Your task to perform on an android device: check the backup settings in the google photos Image 0: 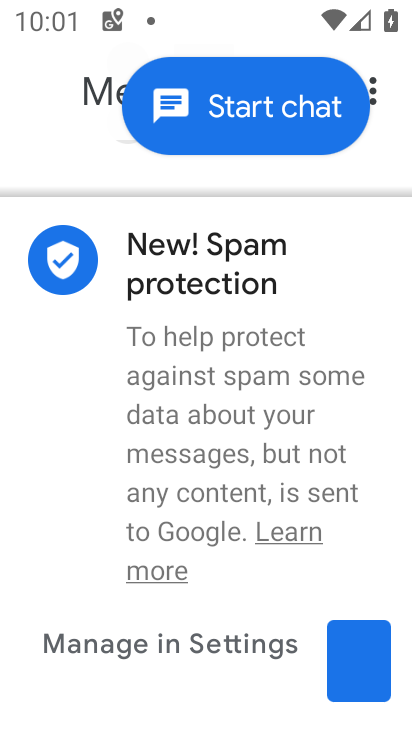
Step 0: press home button
Your task to perform on an android device: check the backup settings in the google photos Image 1: 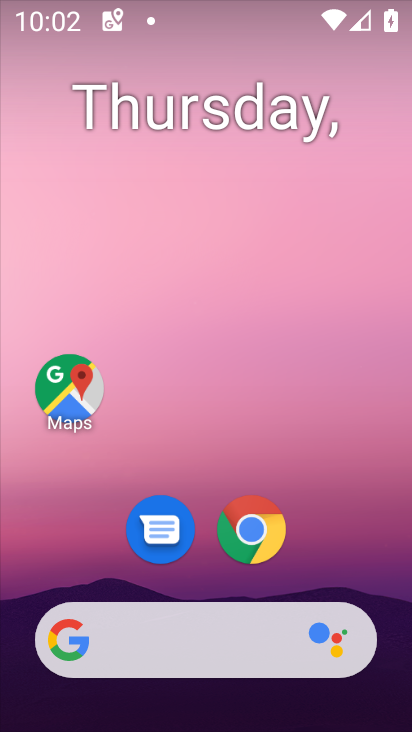
Step 1: drag from (255, 701) to (322, 6)
Your task to perform on an android device: check the backup settings in the google photos Image 2: 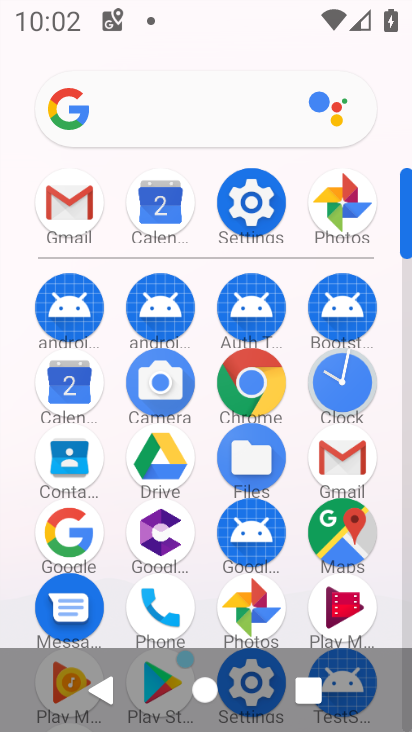
Step 2: click (252, 581)
Your task to perform on an android device: check the backup settings in the google photos Image 3: 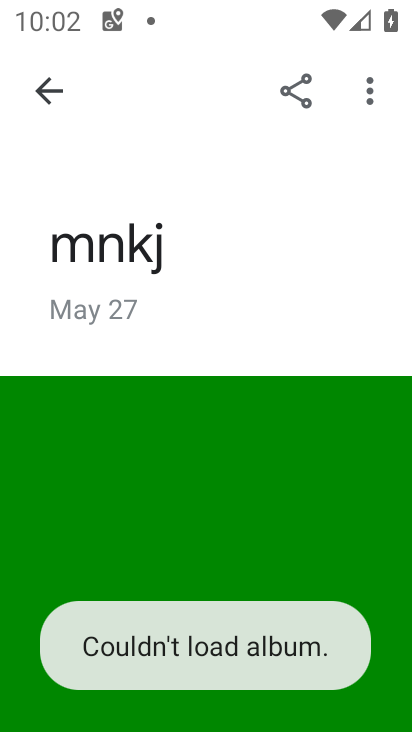
Step 3: click (43, 80)
Your task to perform on an android device: check the backup settings in the google photos Image 4: 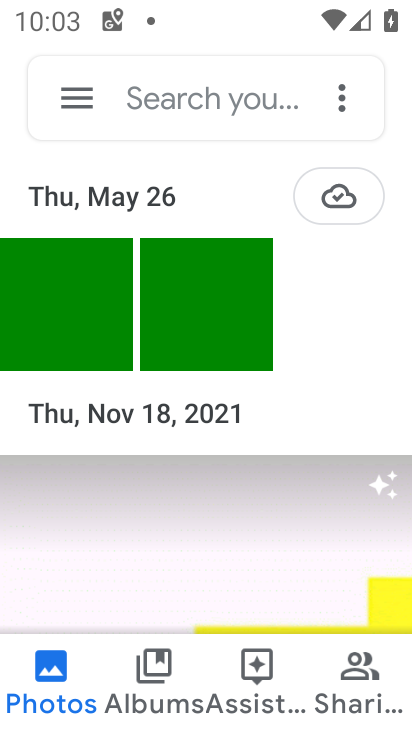
Step 4: click (71, 93)
Your task to perform on an android device: check the backup settings in the google photos Image 5: 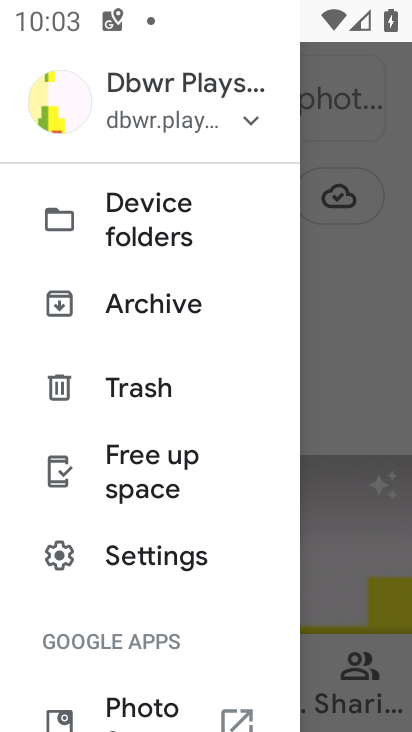
Step 5: click (147, 556)
Your task to perform on an android device: check the backup settings in the google photos Image 6: 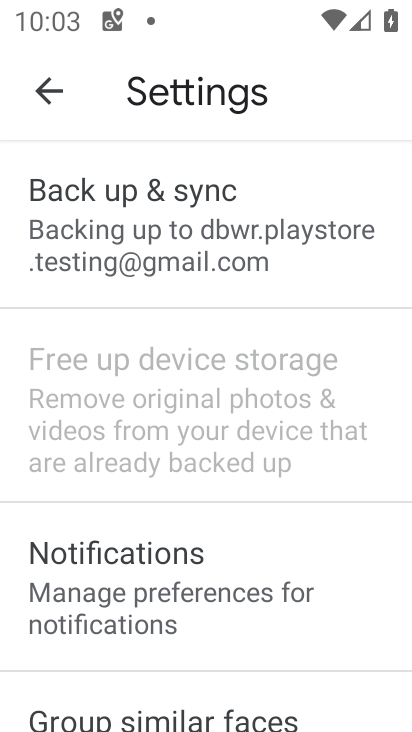
Step 6: click (269, 249)
Your task to perform on an android device: check the backup settings in the google photos Image 7: 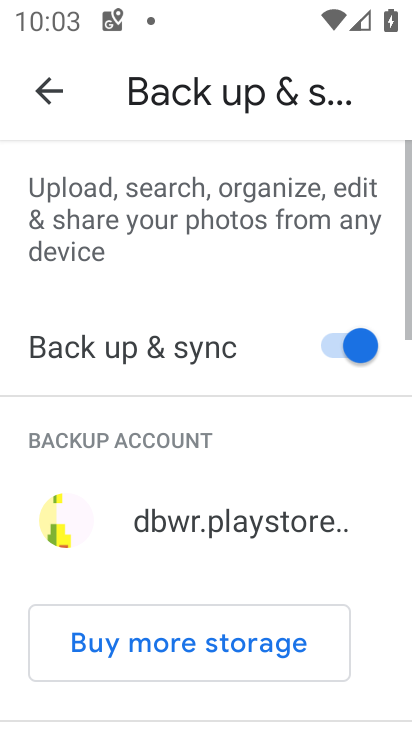
Step 7: task complete